Your task to perform on an android device: What's the news in Ecuador? Image 0: 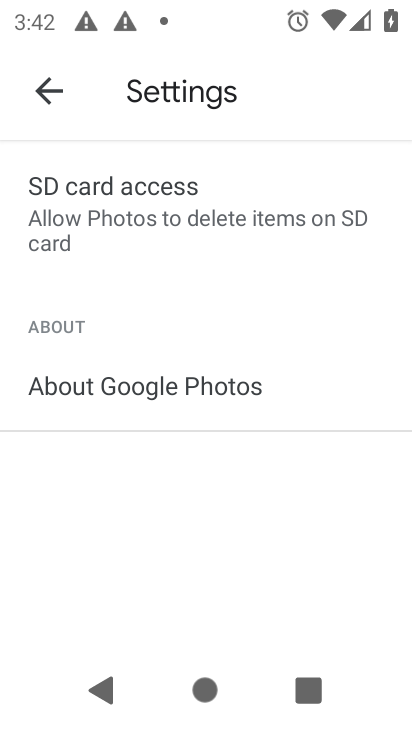
Step 0: press home button
Your task to perform on an android device: What's the news in Ecuador? Image 1: 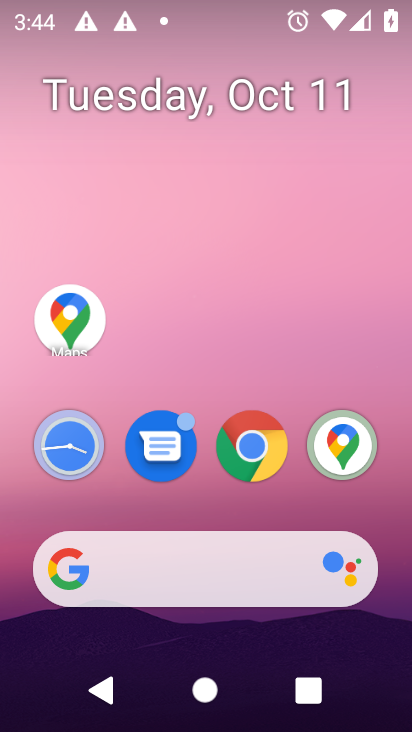
Step 1: click (249, 445)
Your task to perform on an android device: What's the news in Ecuador? Image 2: 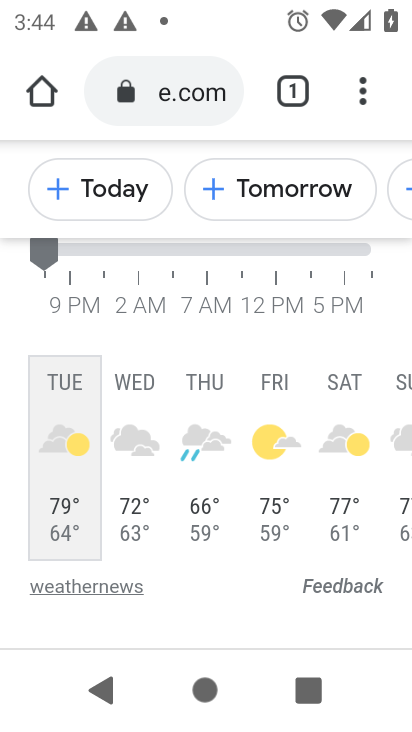
Step 2: click (179, 93)
Your task to perform on an android device: What's the news in Ecuador? Image 3: 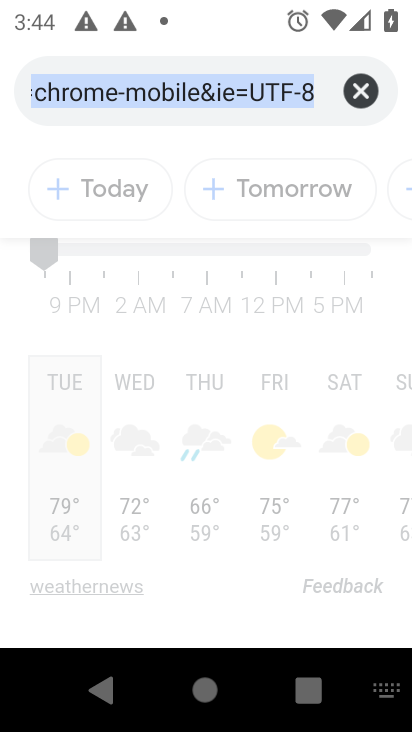
Step 3: click (352, 94)
Your task to perform on an android device: What's the news in Ecuador? Image 4: 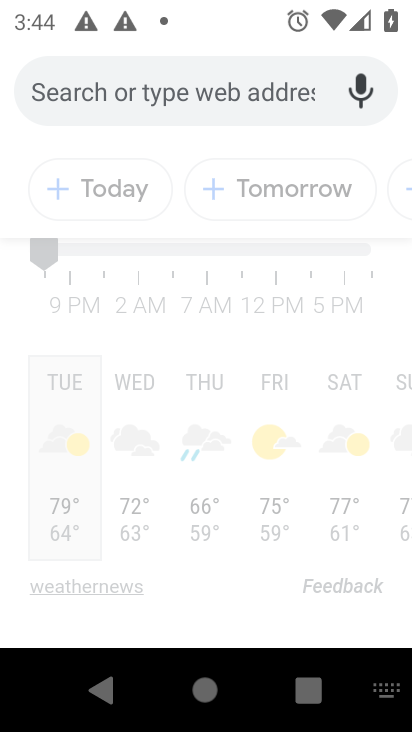
Step 4: type "Ecuador"
Your task to perform on an android device: What's the news in Ecuador? Image 5: 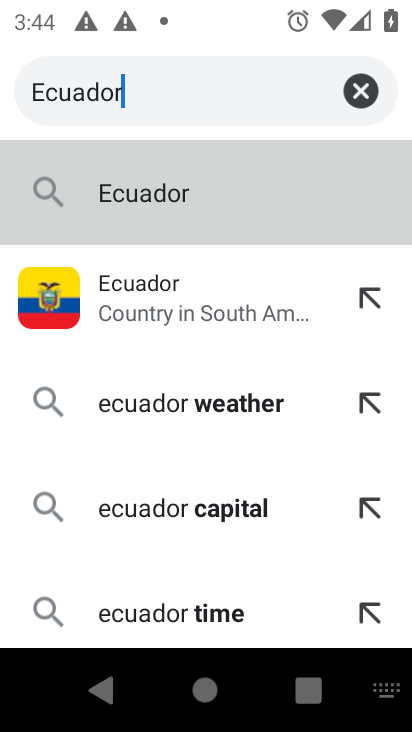
Step 5: click (124, 281)
Your task to perform on an android device: What's the news in Ecuador? Image 6: 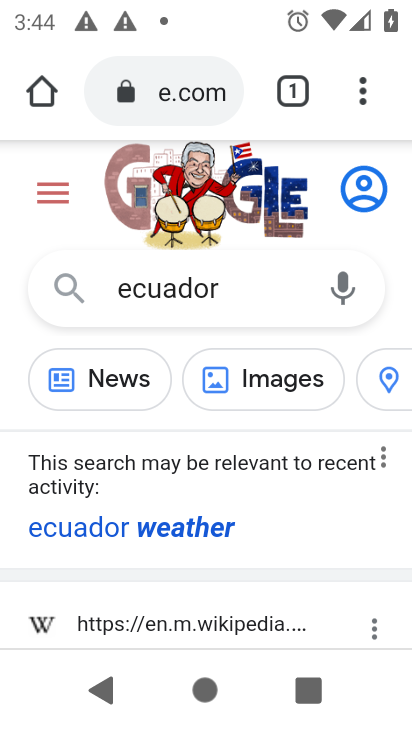
Step 6: click (130, 380)
Your task to perform on an android device: What's the news in Ecuador? Image 7: 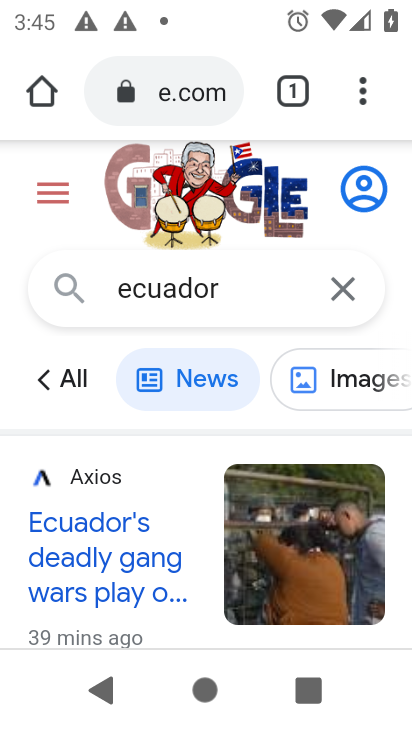
Step 7: drag from (164, 528) to (170, 248)
Your task to perform on an android device: What's the news in Ecuador? Image 8: 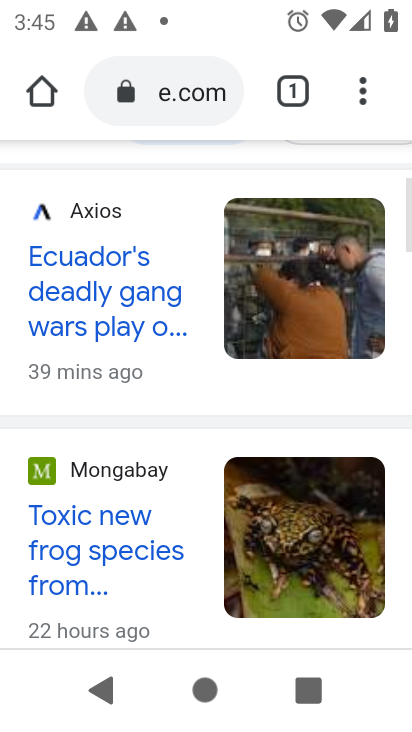
Step 8: click (128, 345)
Your task to perform on an android device: What's the news in Ecuador? Image 9: 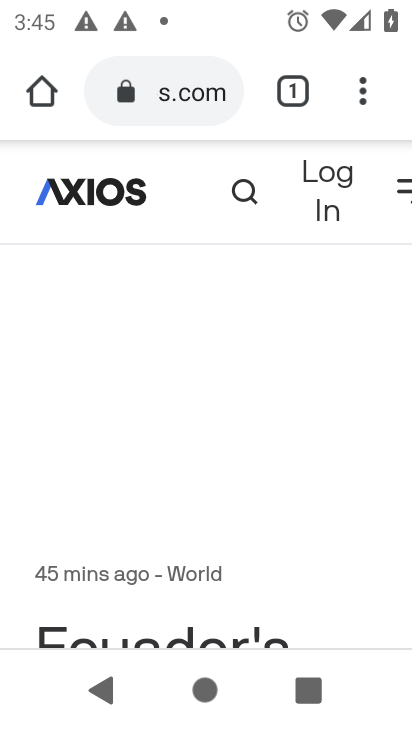
Step 9: task complete